Your task to perform on an android device: stop showing notifications on the lock screen Image 0: 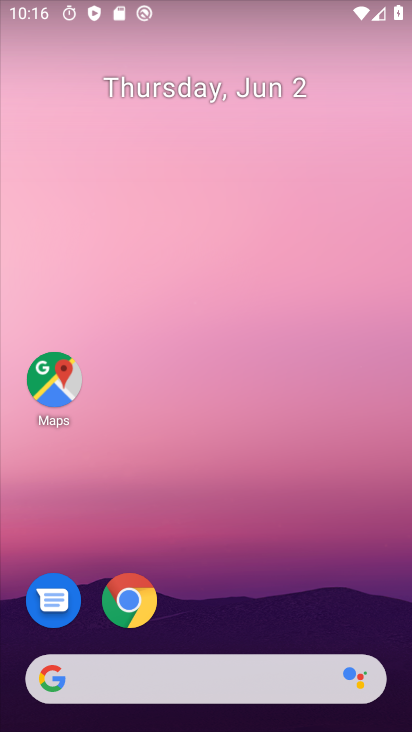
Step 0: drag from (198, 588) to (194, 48)
Your task to perform on an android device: stop showing notifications on the lock screen Image 1: 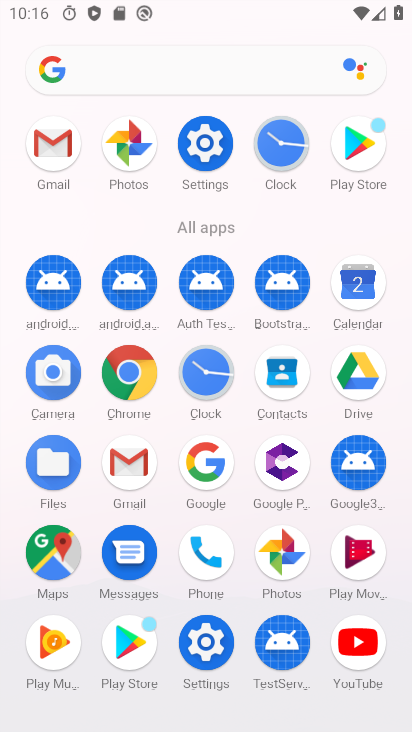
Step 1: click (202, 138)
Your task to perform on an android device: stop showing notifications on the lock screen Image 2: 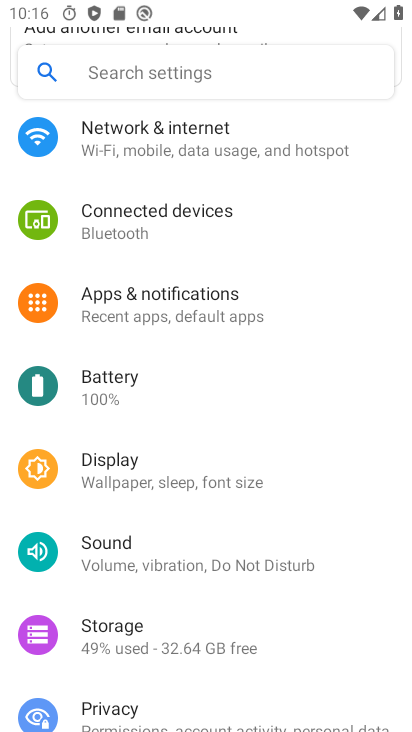
Step 2: click (186, 282)
Your task to perform on an android device: stop showing notifications on the lock screen Image 3: 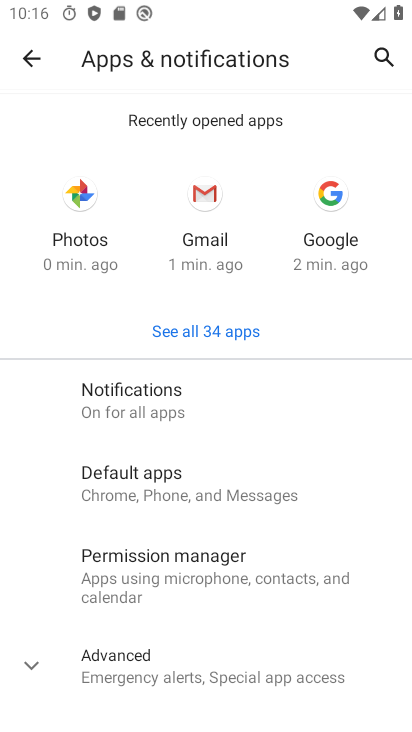
Step 3: click (156, 397)
Your task to perform on an android device: stop showing notifications on the lock screen Image 4: 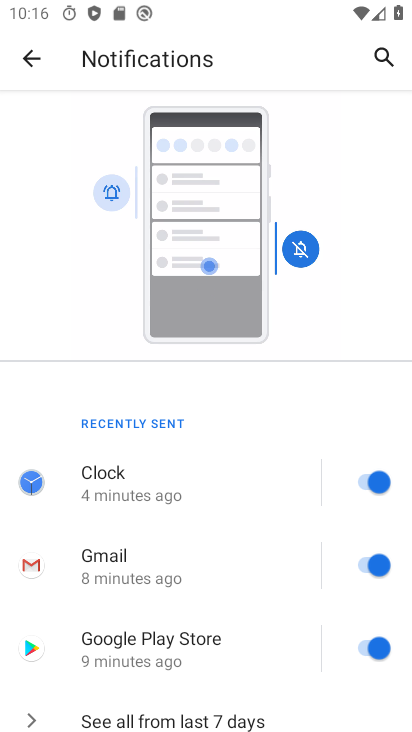
Step 4: drag from (259, 569) to (281, 33)
Your task to perform on an android device: stop showing notifications on the lock screen Image 5: 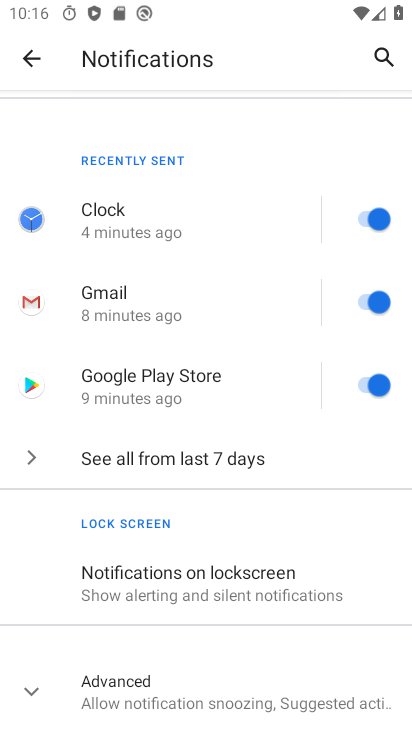
Step 5: click (99, 700)
Your task to perform on an android device: stop showing notifications on the lock screen Image 6: 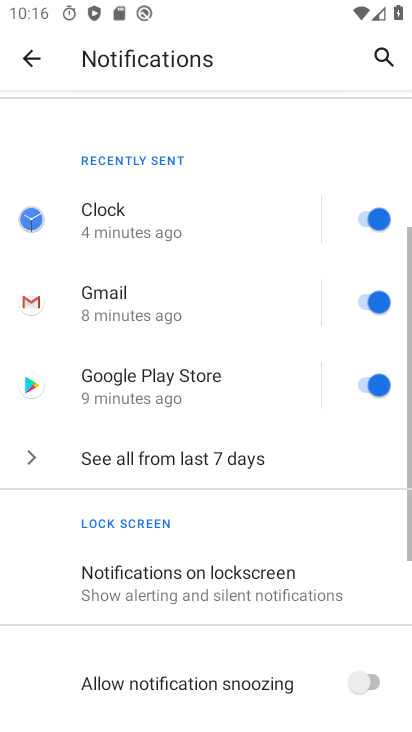
Step 6: drag from (235, 638) to (260, 184)
Your task to perform on an android device: stop showing notifications on the lock screen Image 7: 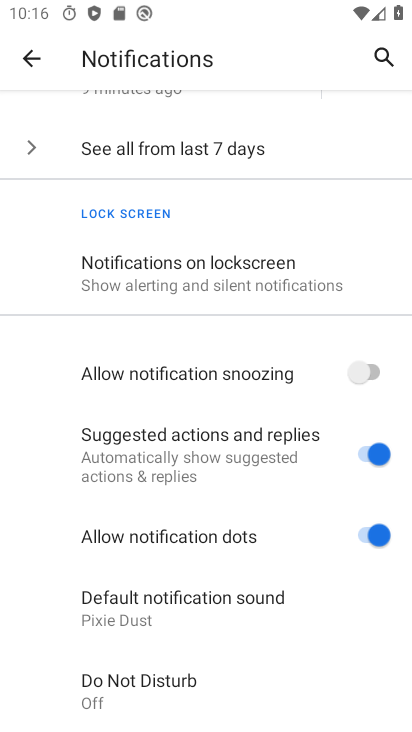
Step 7: click (191, 278)
Your task to perform on an android device: stop showing notifications on the lock screen Image 8: 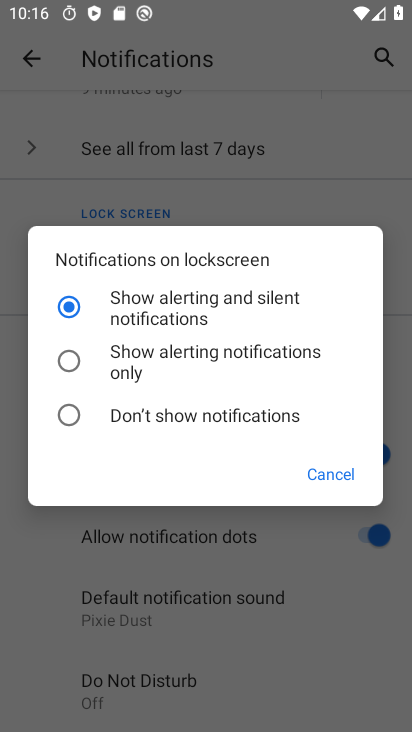
Step 8: click (69, 418)
Your task to perform on an android device: stop showing notifications on the lock screen Image 9: 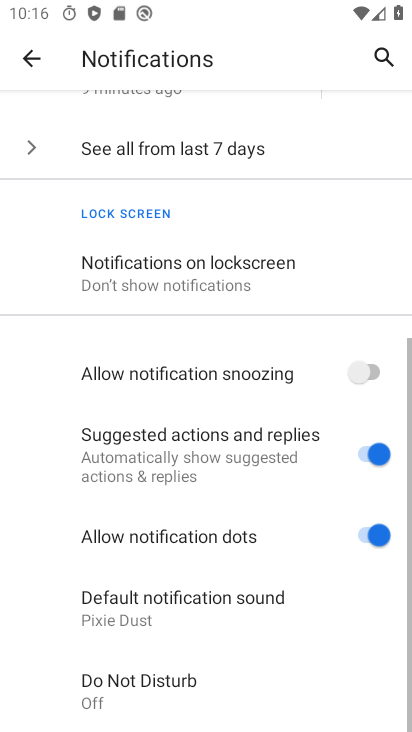
Step 9: task complete